Your task to perform on an android device: Open Yahoo.com Image 0: 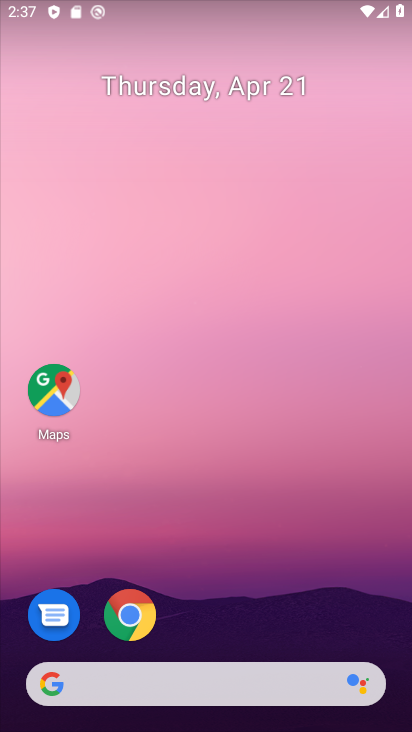
Step 0: drag from (224, 686) to (391, 159)
Your task to perform on an android device: Open Yahoo.com Image 1: 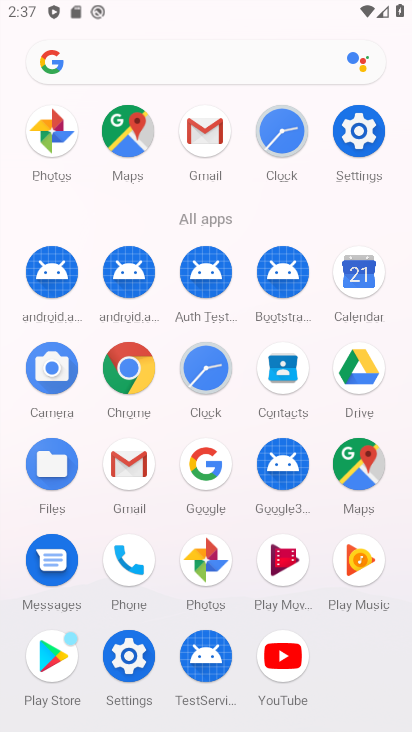
Step 1: click (111, 375)
Your task to perform on an android device: Open Yahoo.com Image 2: 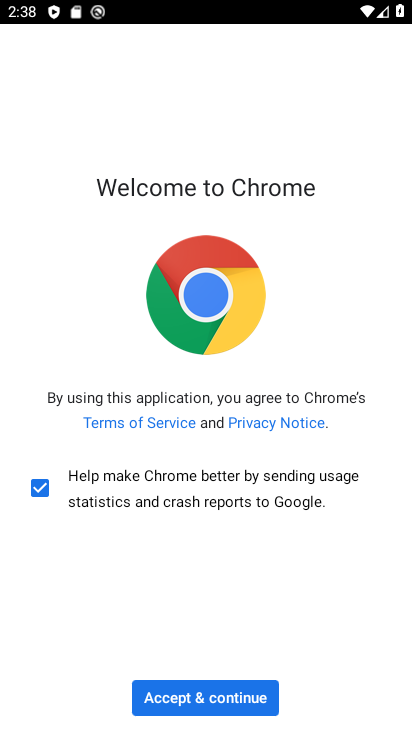
Step 2: click (203, 695)
Your task to perform on an android device: Open Yahoo.com Image 3: 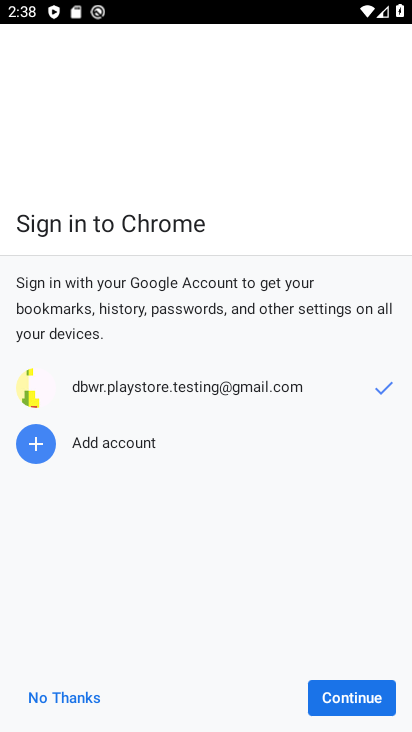
Step 3: click (323, 690)
Your task to perform on an android device: Open Yahoo.com Image 4: 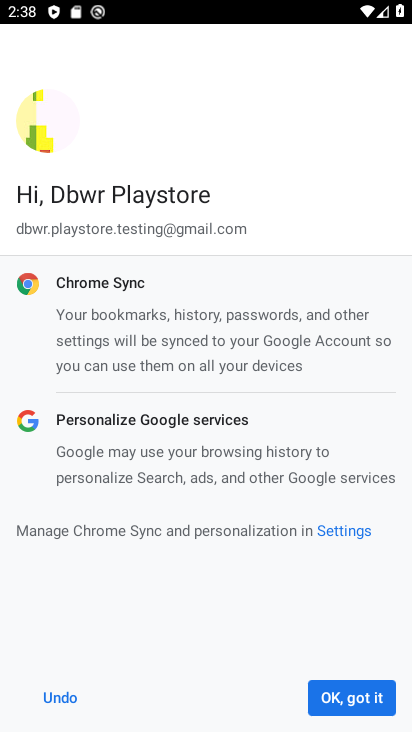
Step 4: click (330, 696)
Your task to perform on an android device: Open Yahoo.com Image 5: 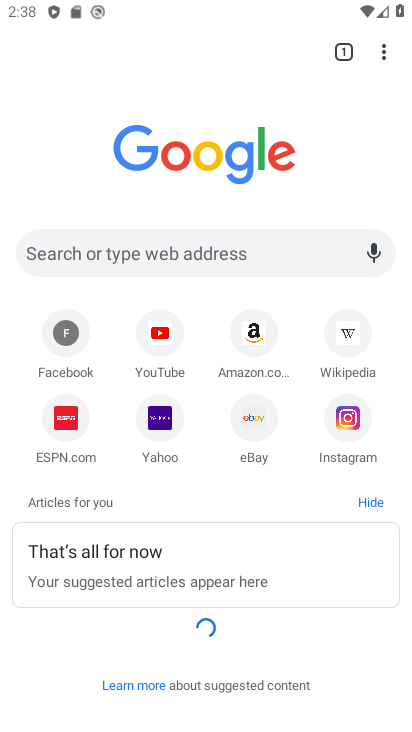
Step 5: click (166, 418)
Your task to perform on an android device: Open Yahoo.com Image 6: 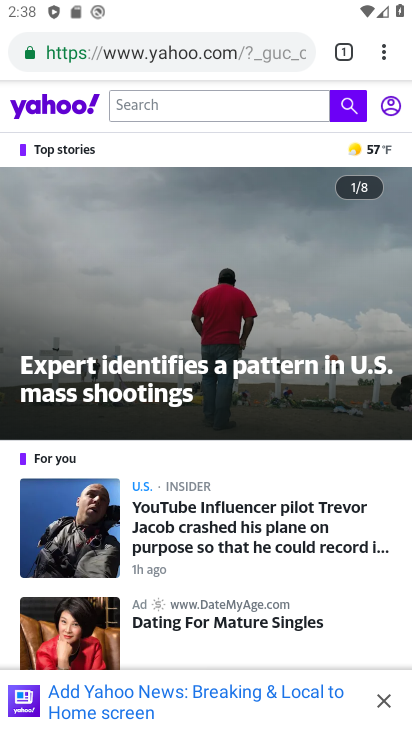
Step 6: task complete